Your task to perform on an android device: turn on translation in the chrome app Image 0: 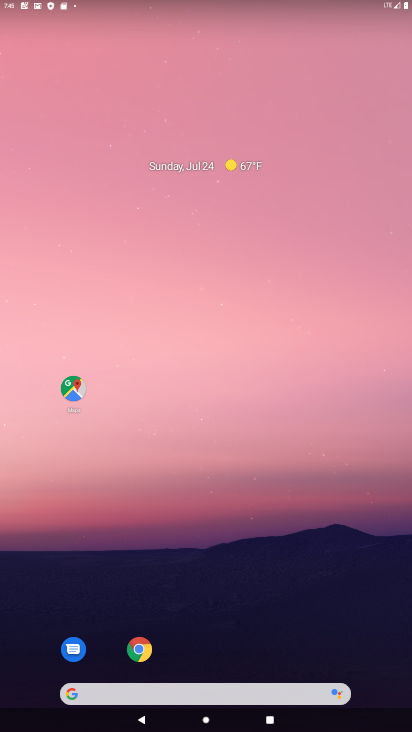
Step 0: drag from (205, 653) to (161, 302)
Your task to perform on an android device: turn on translation in the chrome app Image 1: 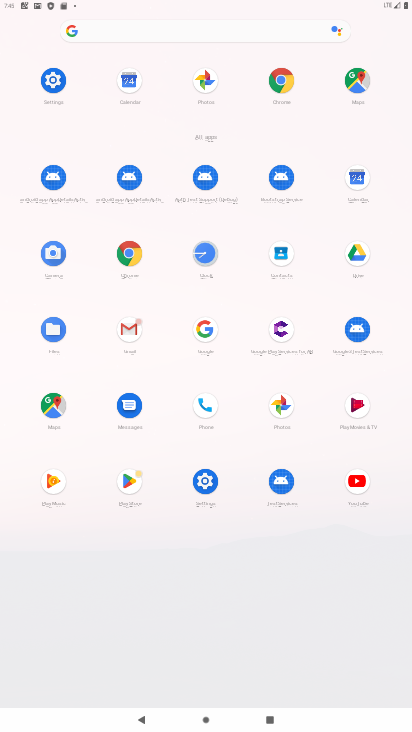
Step 1: click (124, 265)
Your task to perform on an android device: turn on translation in the chrome app Image 2: 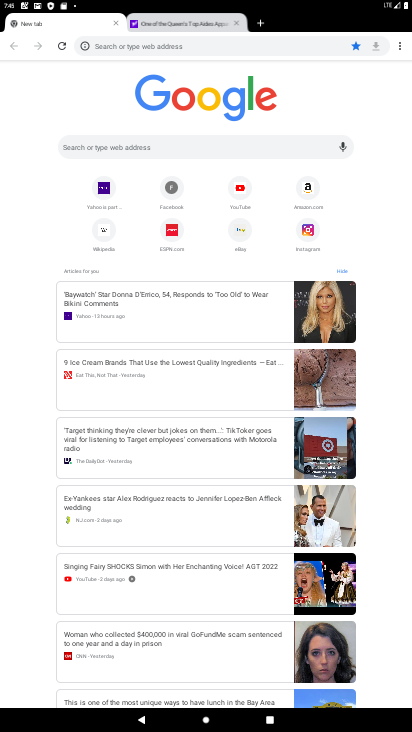
Step 2: click (403, 48)
Your task to perform on an android device: turn on translation in the chrome app Image 3: 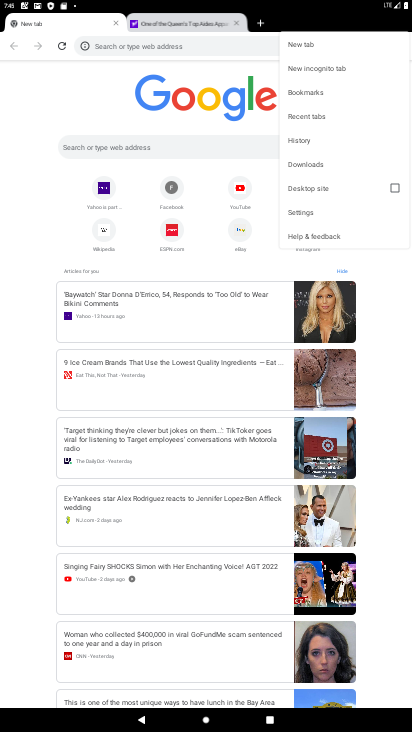
Step 3: click (298, 210)
Your task to perform on an android device: turn on translation in the chrome app Image 4: 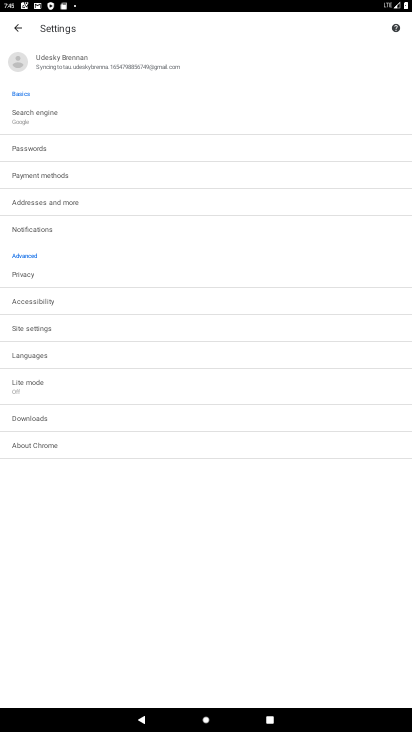
Step 4: click (26, 360)
Your task to perform on an android device: turn on translation in the chrome app Image 5: 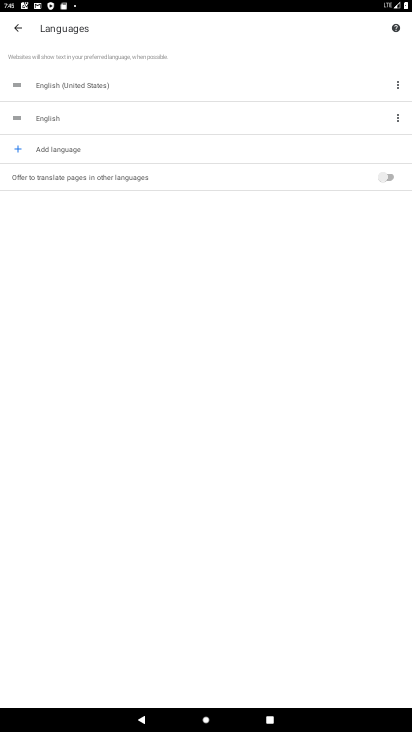
Step 5: click (384, 181)
Your task to perform on an android device: turn on translation in the chrome app Image 6: 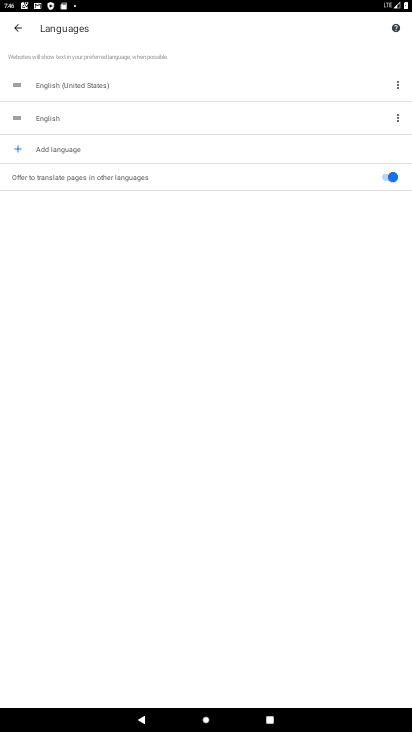
Step 6: task complete